Your task to perform on an android device: allow cookies in the chrome app Image 0: 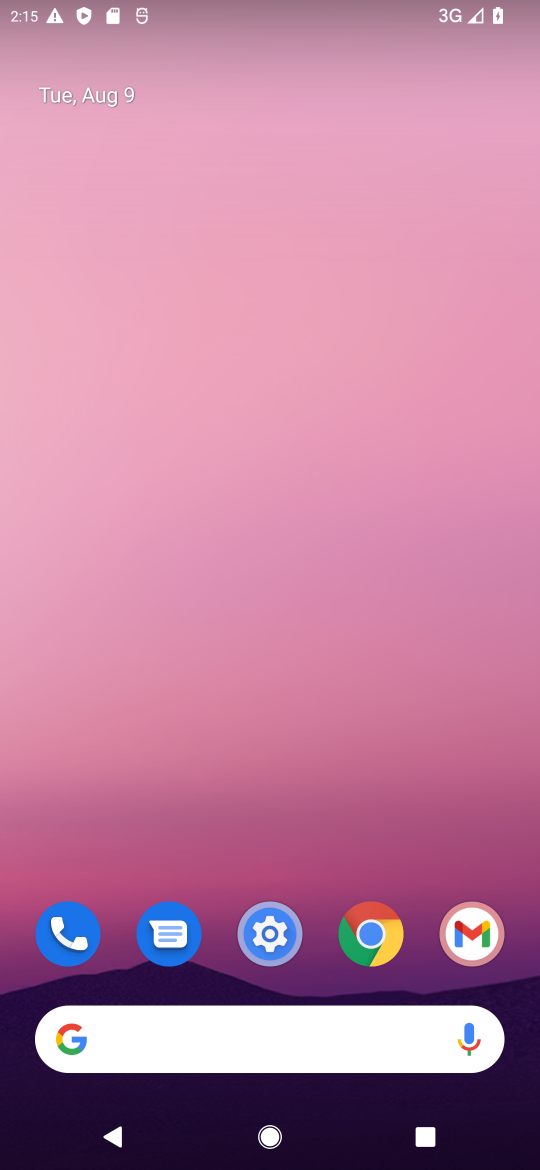
Step 0: click (365, 924)
Your task to perform on an android device: allow cookies in the chrome app Image 1: 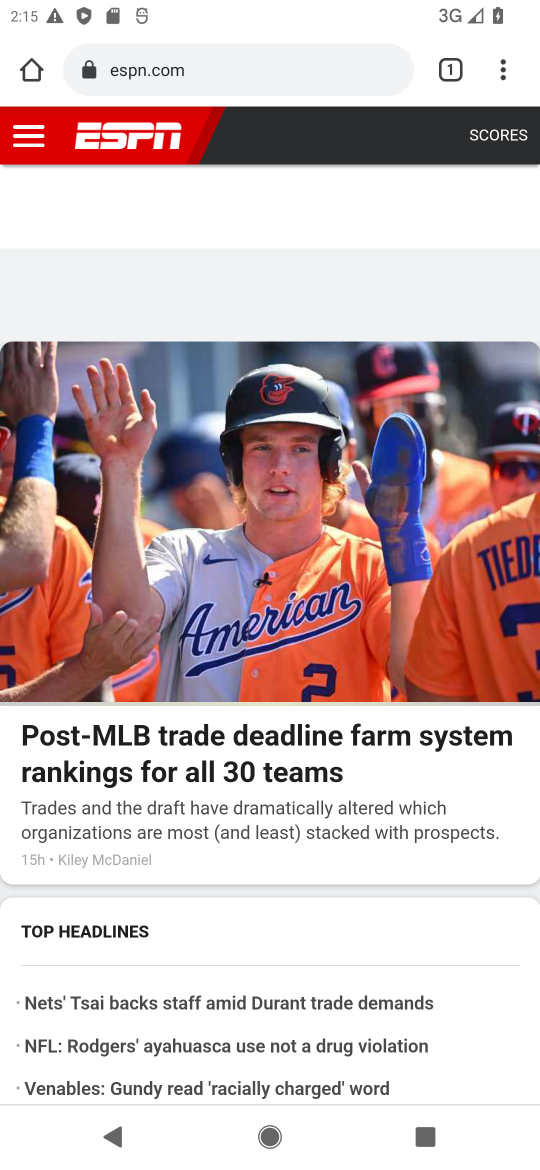
Step 1: click (490, 72)
Your task to perform on an android device: allow cookies in the chrome app Image 2: 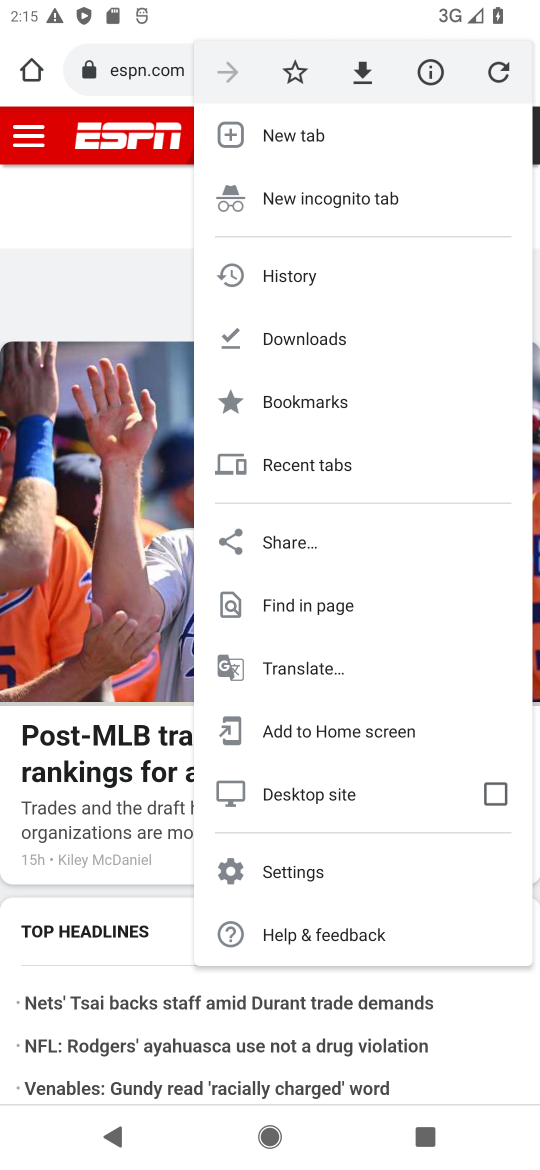
Step 2: click (317, 881)
Your task to perform on an android device: allow cookies in the chrome app Image 3: 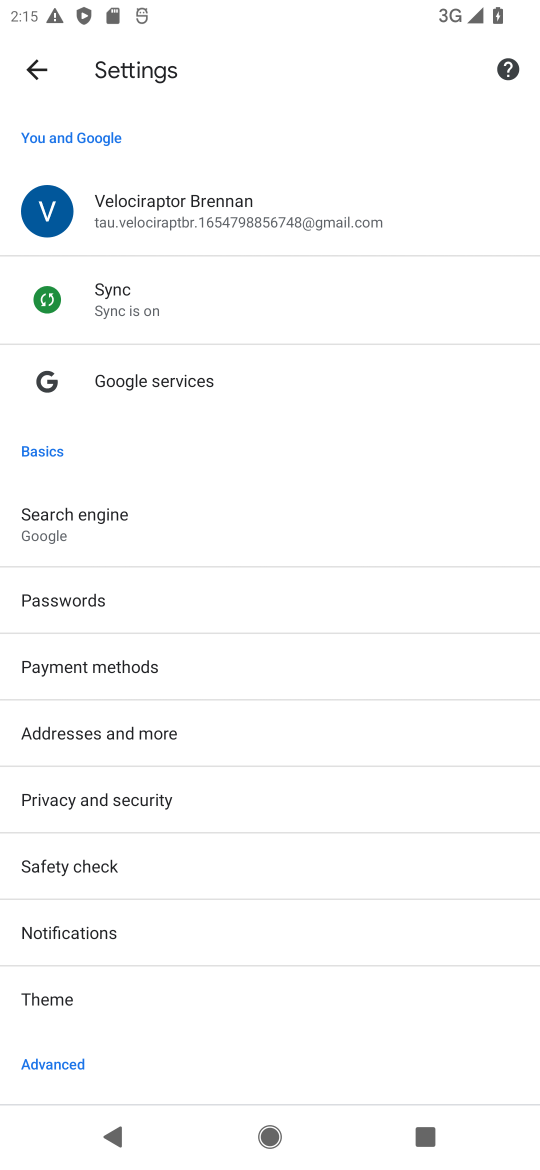
Step 3: task complete